Your task to perform on an android device: What's the weather going to be this weekend? Image 0: 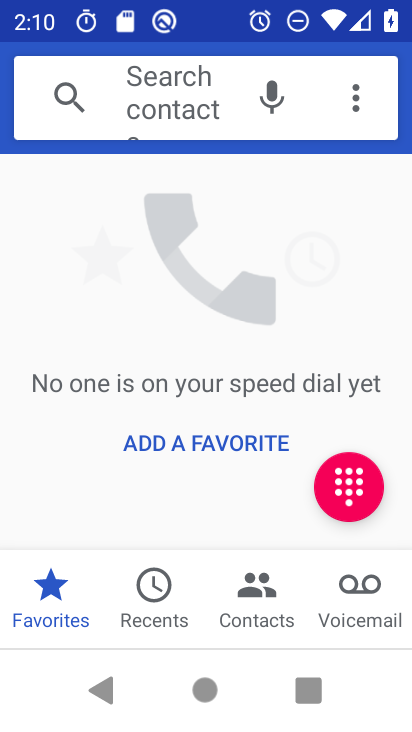
Step 0: press home button
Your task to perform on an android device: What's the weather going to be this weekend? Image 1: 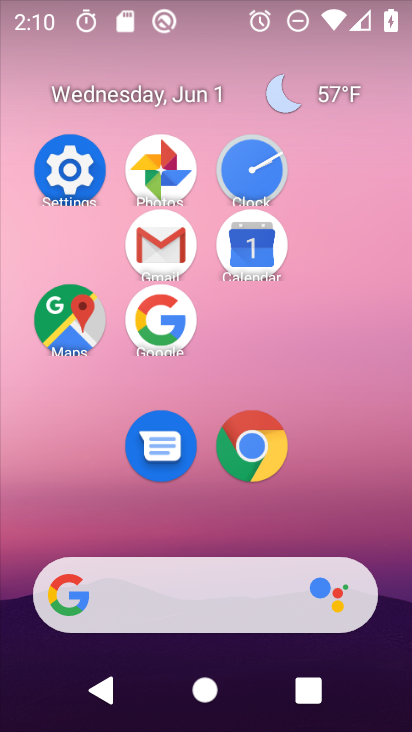
Step 1: click (175, 317)
Your task to perform on an android device: What's the weather going to be this weekend? Image 2: 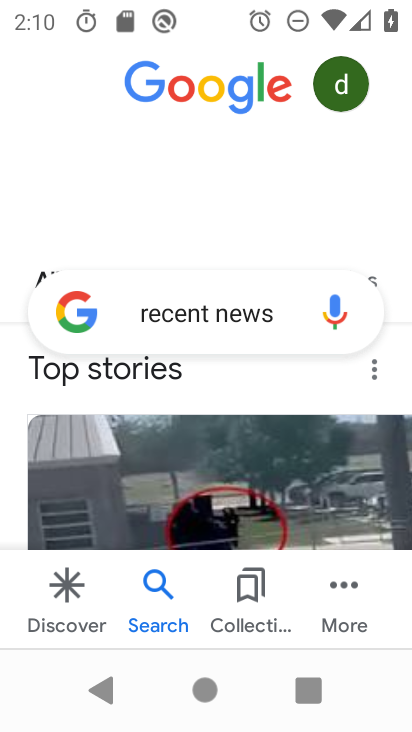
Step 2: click (272, 305)
Your task to perform on an android device: What's the weather going to be this weekend? Image 3: 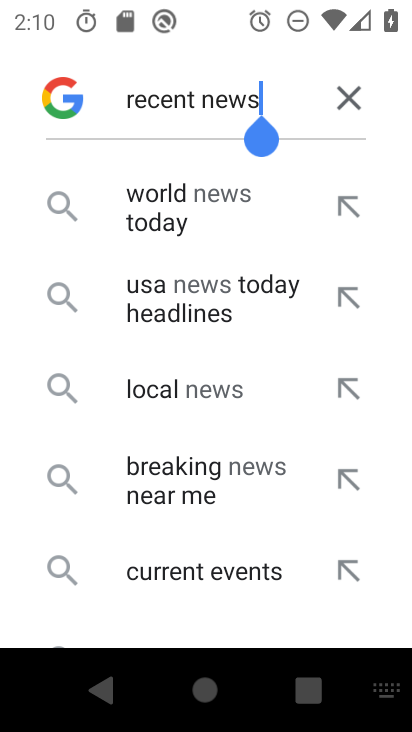
Step 3: click (331, 96)
Your task to perform on an android device: What's the weather going to be this weekend? Image 4: 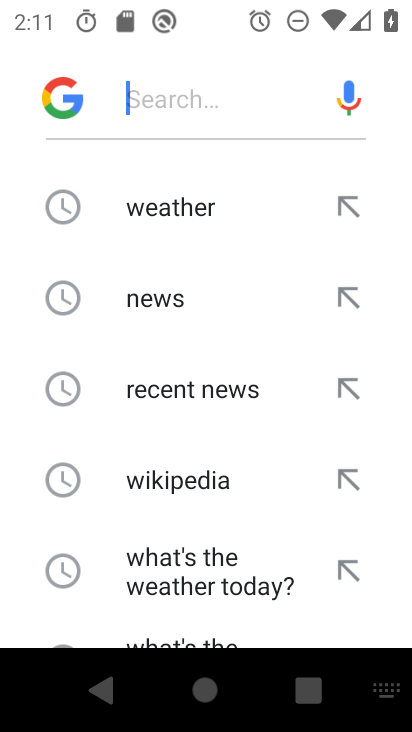
Step 4: click (185, 202)
Your task to perform on an android device: What's the weather going to be this weekend? Image 5: 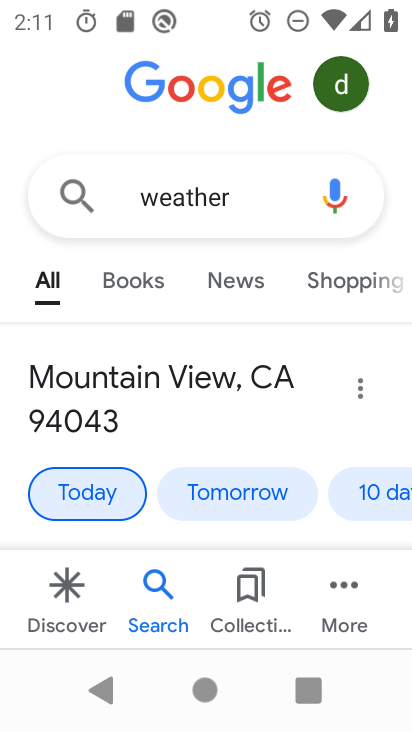
Step 5: click (384, 488)
Your task to perform on an android device: What's the weather going to be this weekend? Image 6: 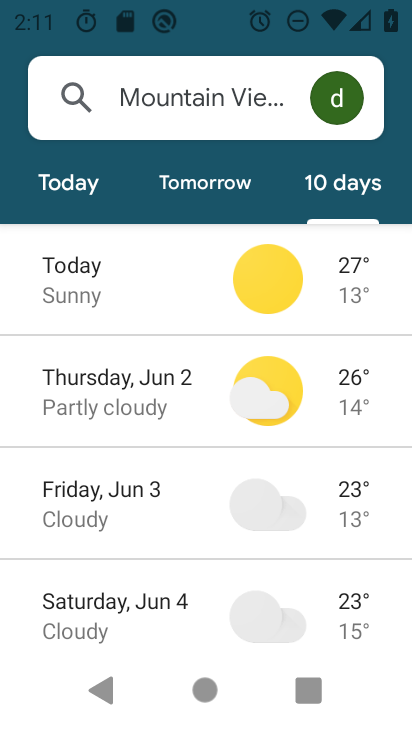
Step 6: click (154, 620)
Your task to perform on an android device: What's the weather going to be this weekend? Image 7: 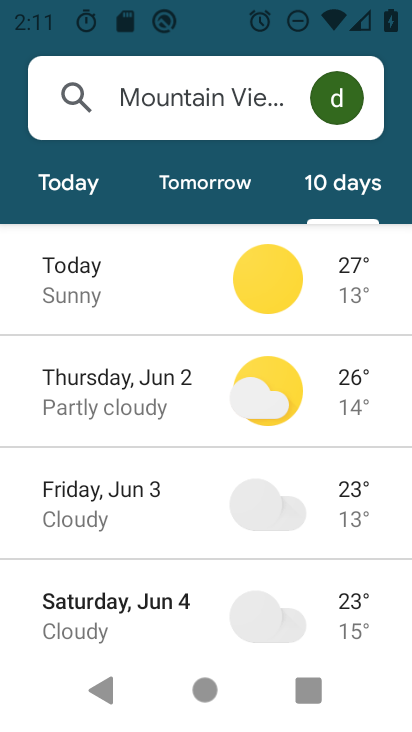
Step 7: task complete